Your task to perform on an android device: toggle airplane mode Image 0: 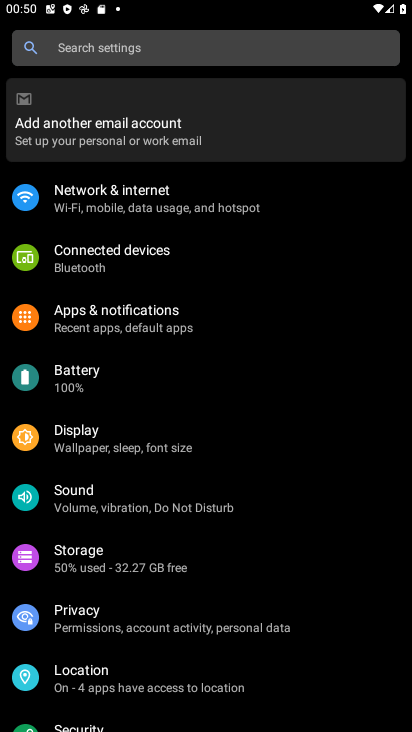
Step 0: click (196, 212)
Your task to perform on an android device: toggle airplane mode Image 1: 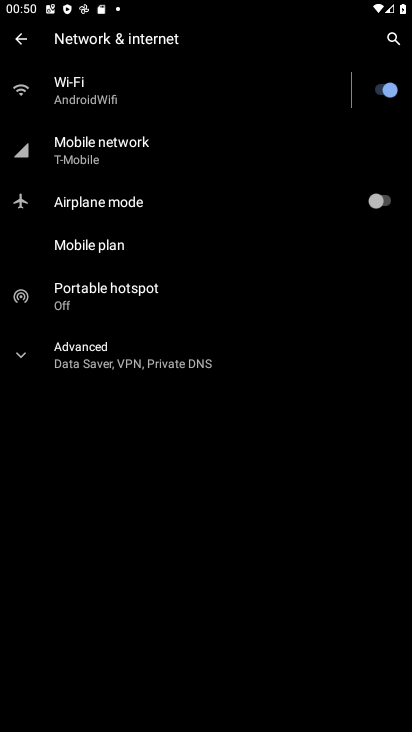
Step 1: click (382, 207)
Your task to perform on an android device: toggle airplane mode Image 2: 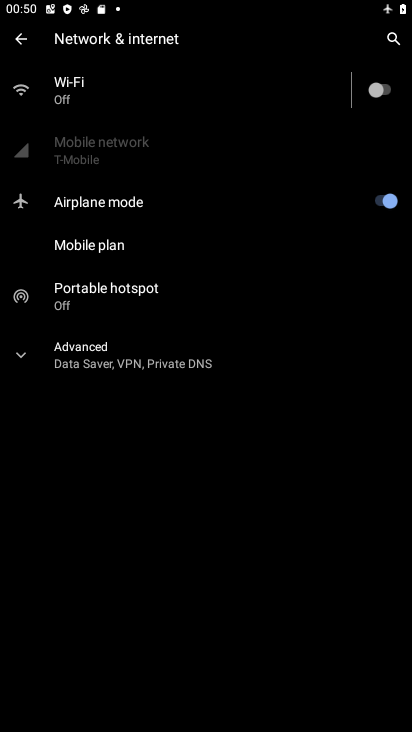
Step 2: task complete